Your task to perform on an android device: Set an alarm for 11am Image 0: 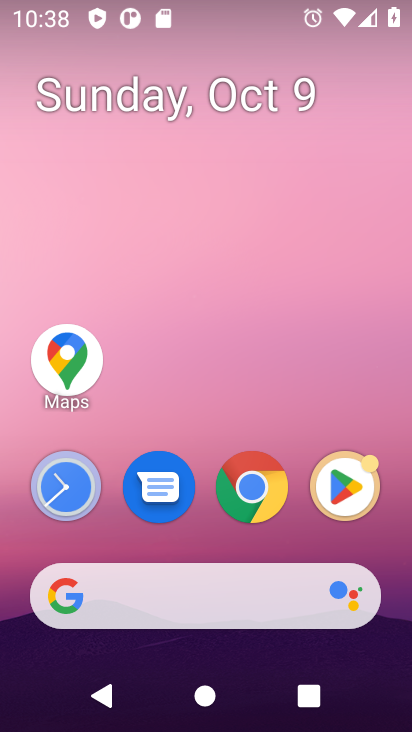
Step 0: drag from (209, 554) to (217, 94)
Your task to perform on an android device: Set an alarm for 11am Image 1: 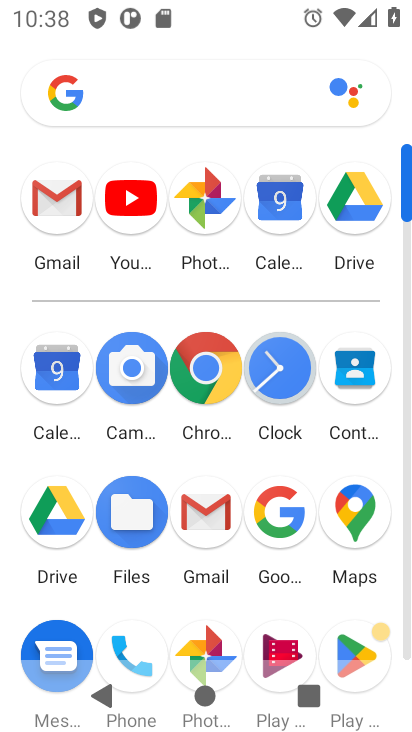
Step 1: click (278, 375)
Your task to perform on an android device: Set an alarm for 11am Image 2: 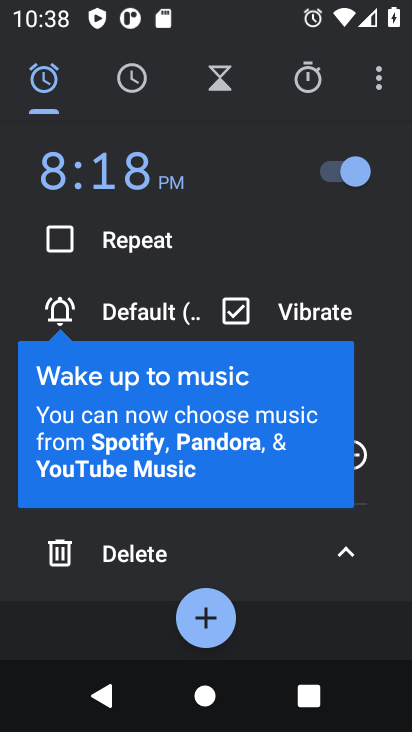
Step 2: click (205, 617)
Your task to perform on an android device: Set an alarm for 11am Image 3: 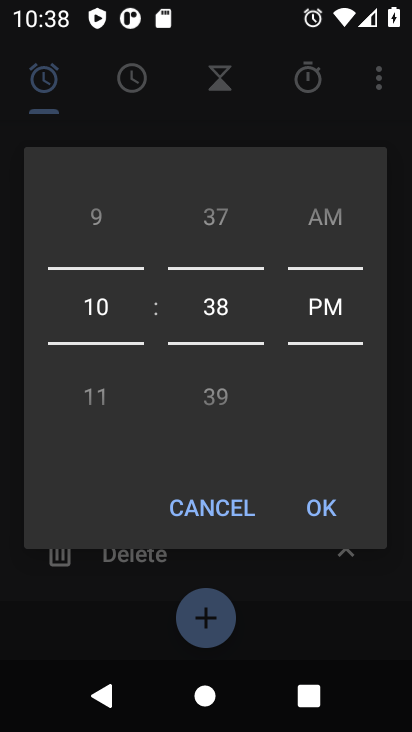
Step 3: click (212, 390)
Your task to perform on an android device: Set an alarm for 11am Image 4: 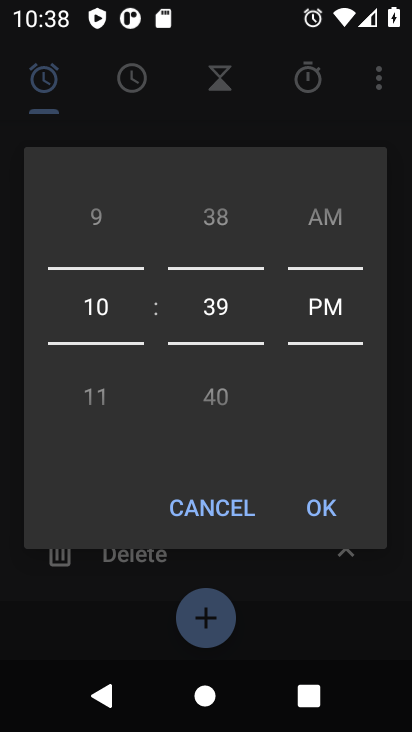
Step 4: click (327, 211)
Your task to perform on an android device: Set an alarm for 11am Image 5: 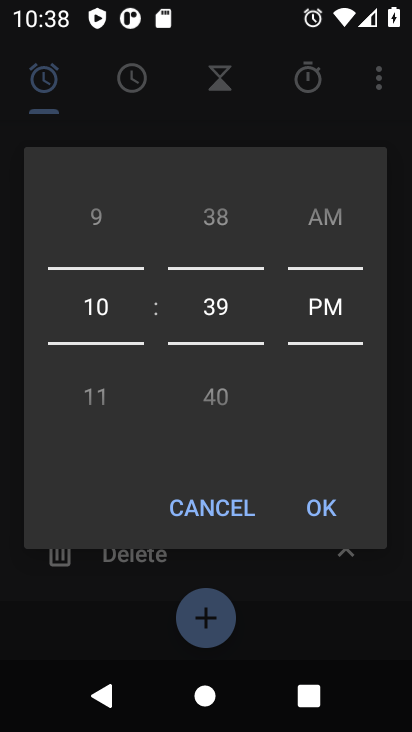
Step 5: click (324, 501)
Your task to perform on an android device: Set an alarm for 11am Image 6: 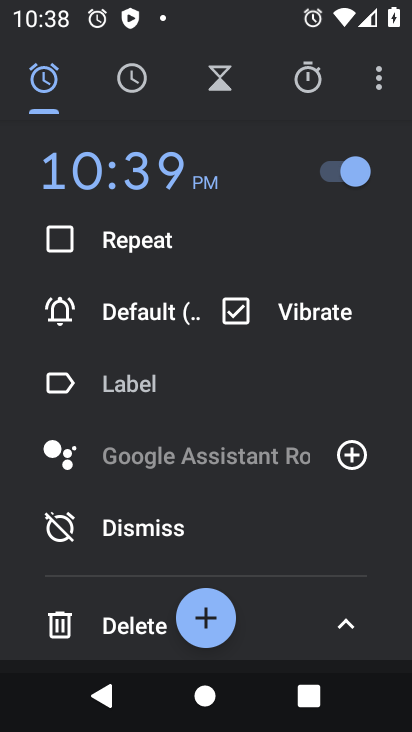
Step 6: task complete